Your task to perform on an android device: Open my contact list Image 0: 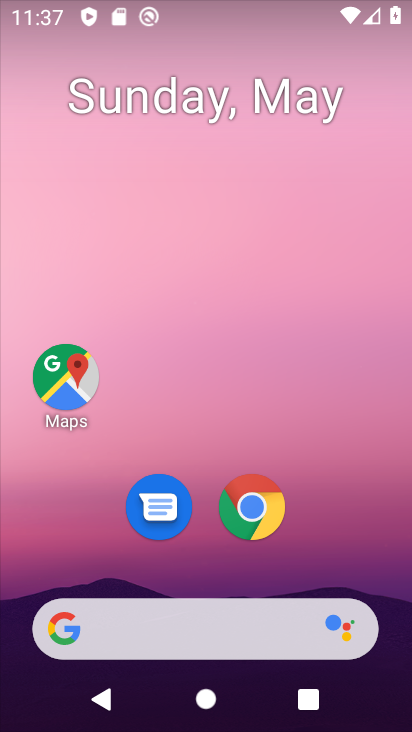
Step 0: drag from (243, 727) to (246, 51)
Your task to perform on an android device: Open my contact list Image 1: 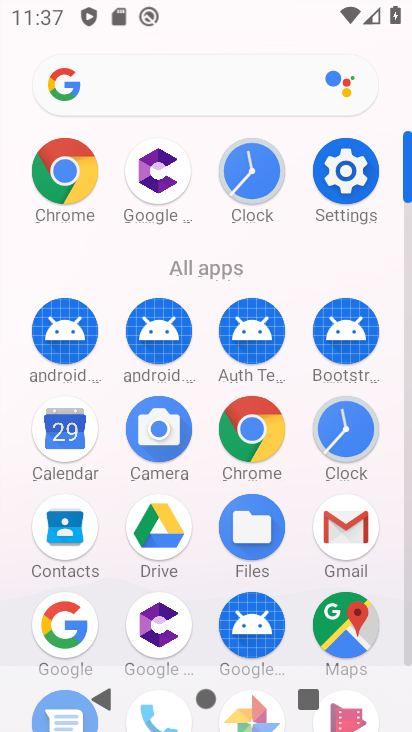
Step 1: click (60, 534)
Your task to perform on an android device: Open my contact list Image 2: 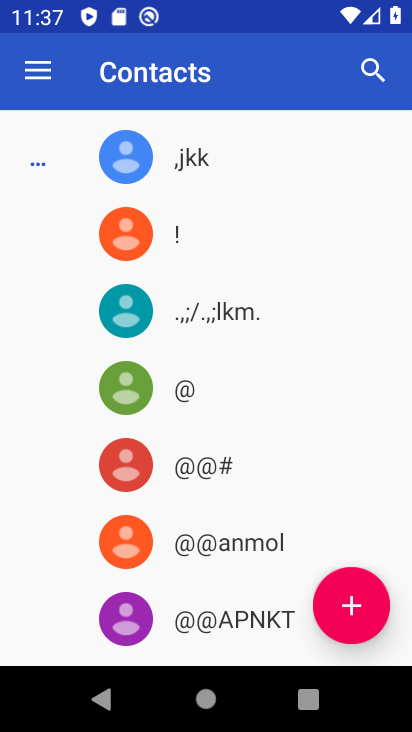
Step 2: task complete